Your task to perform on an android device: stop showing notifications on the lock screen Image 0: 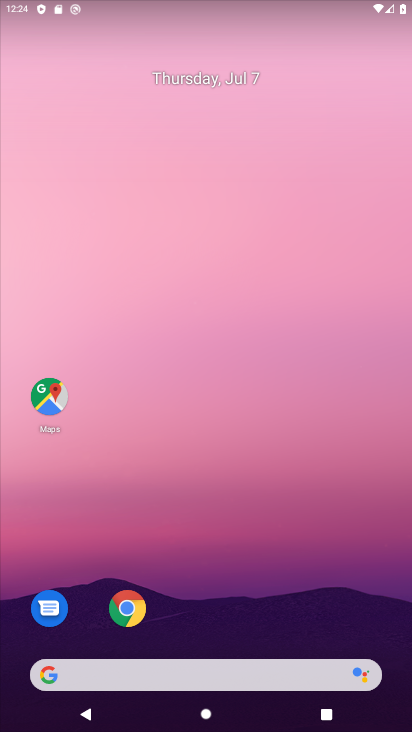
Step 0: drag from (230, 627) to (294, 10)
Your task to perform on an android device: stop showing notifications on the lock screen Image 1: 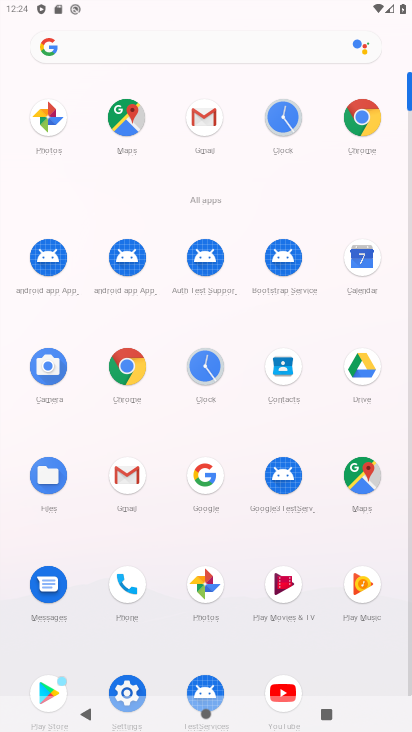
Step 1: click (129, 686)
Your task to perform on an android device: stop showing notifications on the lock screen Image 2: 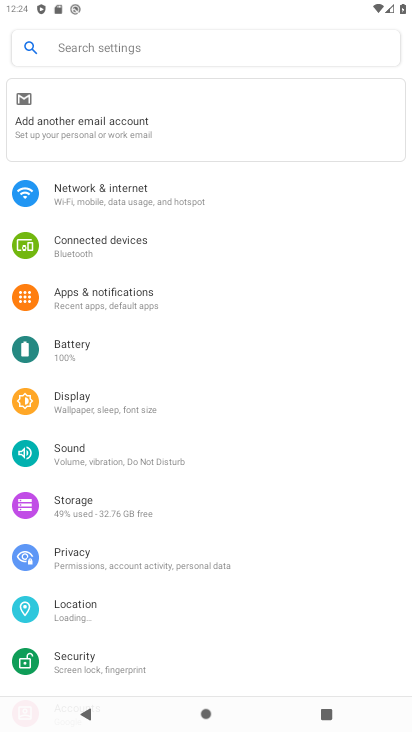
Step 2: click (115, 304)
Your task to perform on an android device: stop showing notifications on the lock screen Image 3: 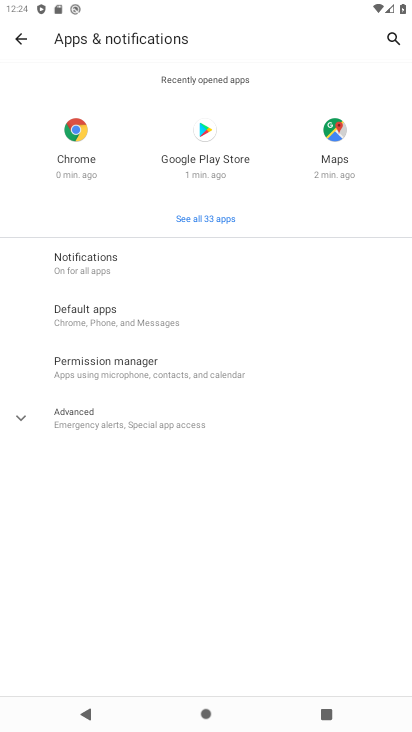
Step 3: click (139, 266)
Your task to perform on an android device: stop showing notifications on the lock screen Image 4: 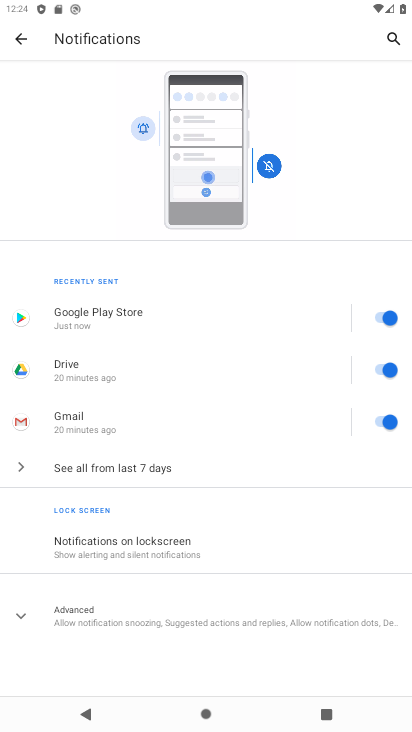
Step 4: click (209, 539)
Your task to perform on an android device: stop showing notifications on the lock screen Image 5: 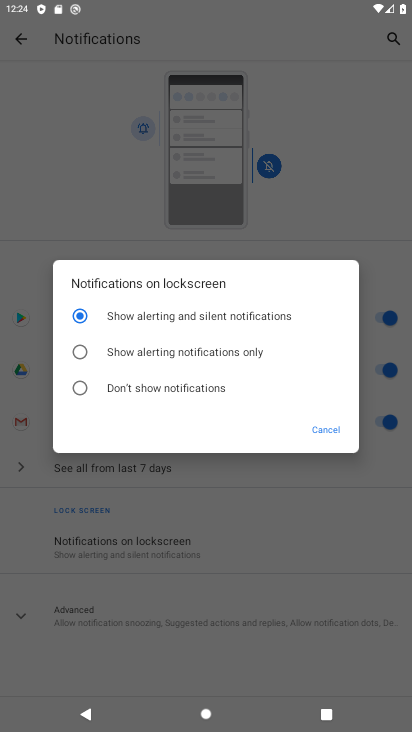
Step 5: click (174, 384)
Your task to perform on an android device: stop showing notifications on the lock screen Image 6: 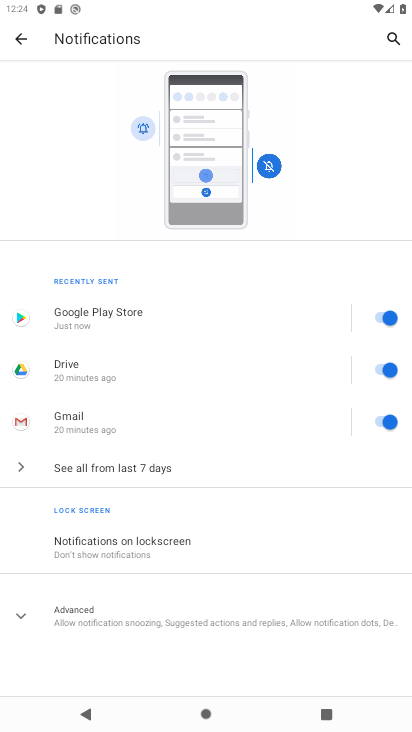
Step 6: task complete